Your task to perform on an android device: turn off javascript in the chrome app Image 0: 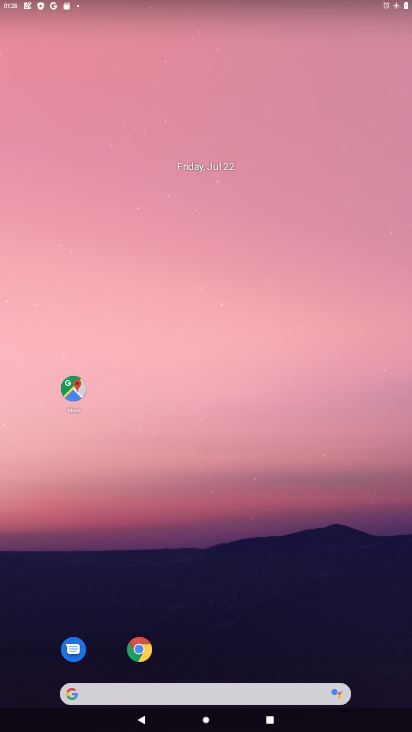
Step 0: drag from (264, 563) to (275, 60)
Your task to perform on an android device: turn off javascript in the chrome app Image 1: 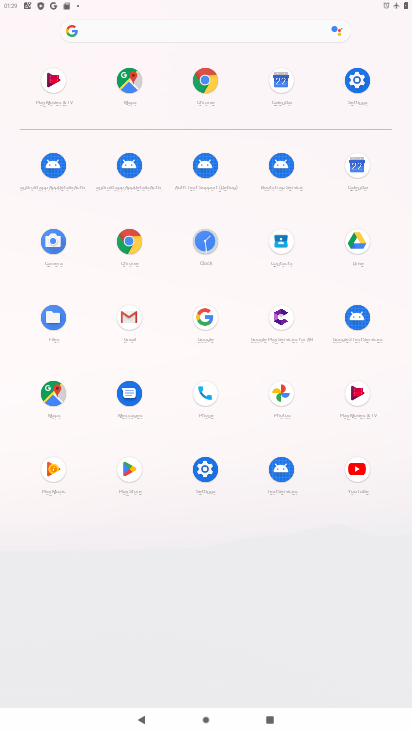
Step 1: click (205, 72)
Your task to perform on an android device: turn off javascript in the chrome app Image 2: 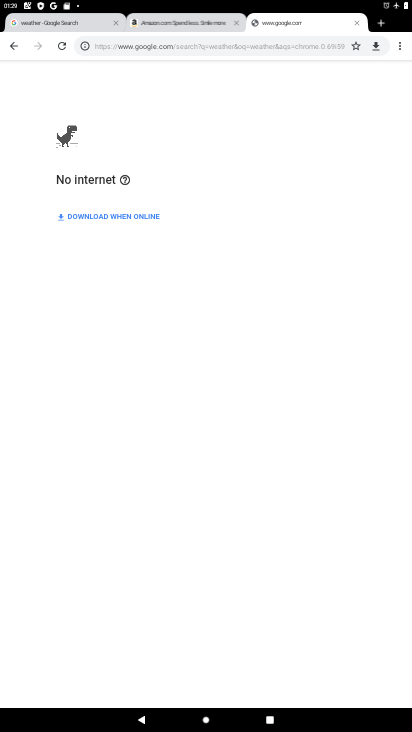
Step 2: drag from (397, 43) to (297, 302)
Your task to perform on an android device: turn off javascript in the chrome app Image 3: 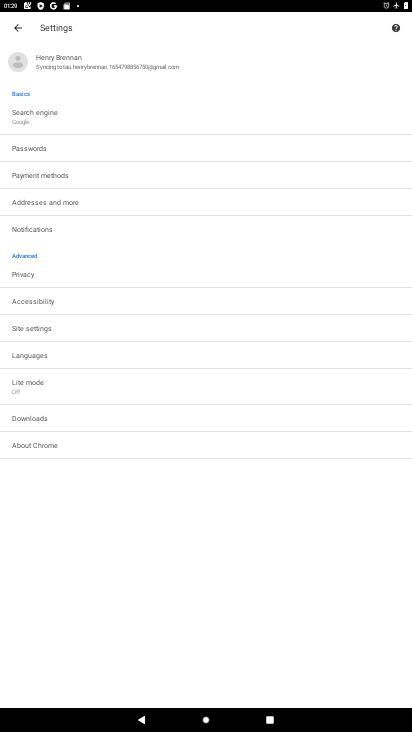
Step 3: click (85, 384)
Your task to perform on an android device: turn off javascript in the chrome app Image 4: 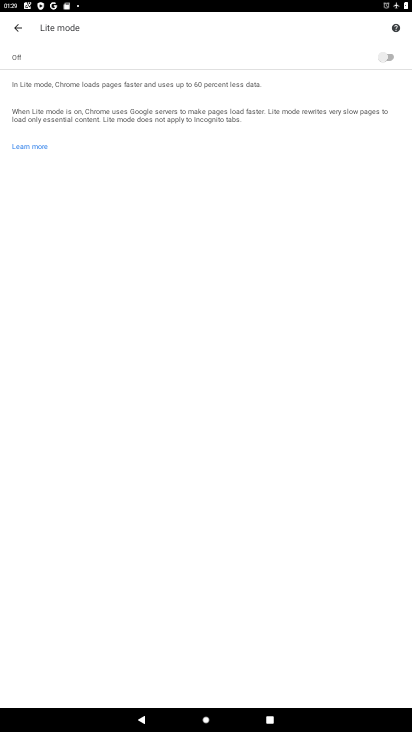
Step 4: task complete